Your task to perform on an android device: open chrome and create a bookmark for the current page Image 0: 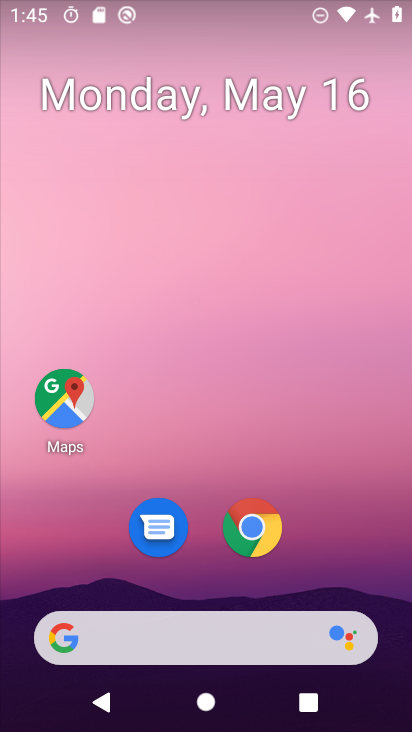
Step 0: press home button
Your task to perform on an android device: open chrome and create a bookmark for the current page Image 1: 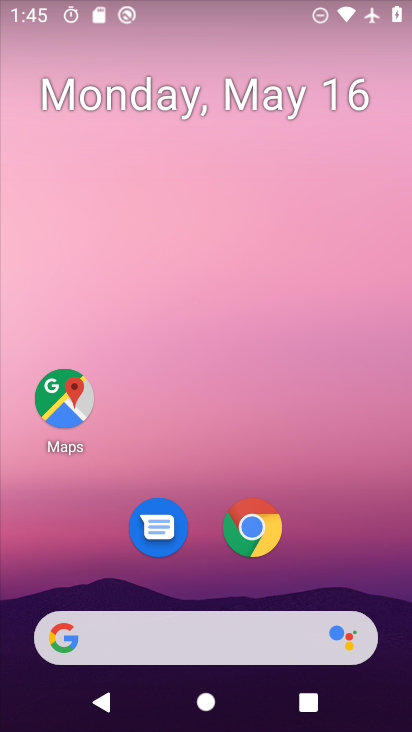
Step 1: drag from (149, 634) to (281, 144)
Your task to perform on an android device: open chrome and create a bookmark for the current page Image 2: 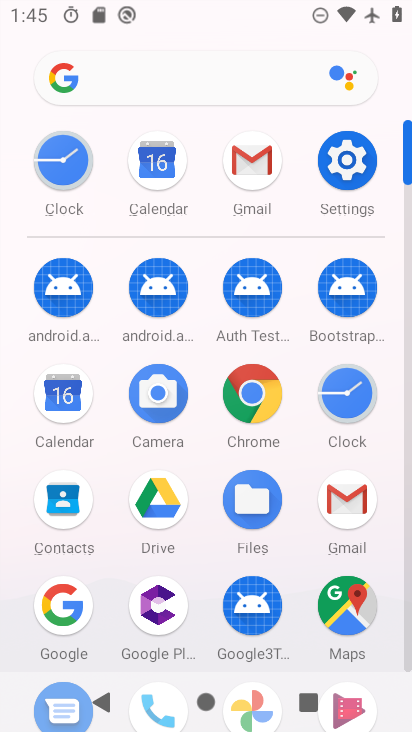
Step 2: click (253, 384)
Your task to perform on an android device: open chrome and create a bookmark for the current page Image 3: 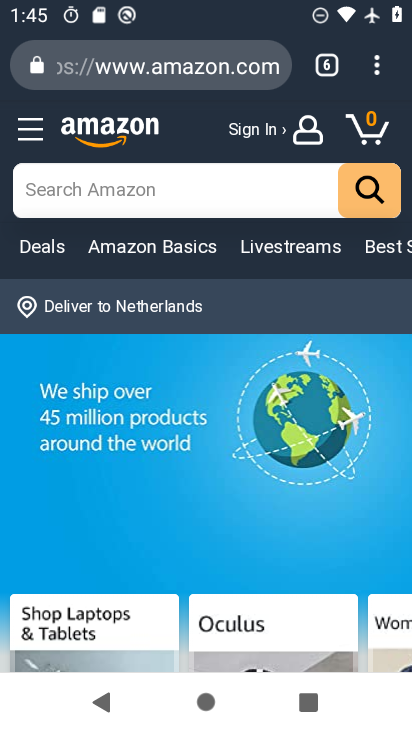
Step 3: click (364, 86)
Your task to perform on an android device: open chrome and create a bookmark for the current page Image 4: 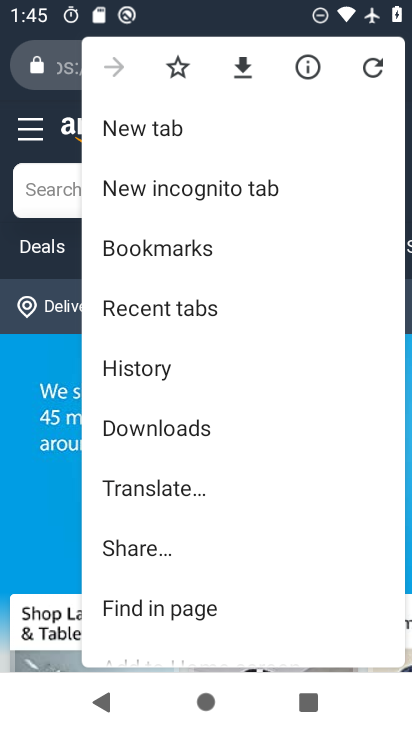
Step 4: click (179, 68)
Your task to perform on an android device: open chrome and create a bookmark for the current page Image 5: 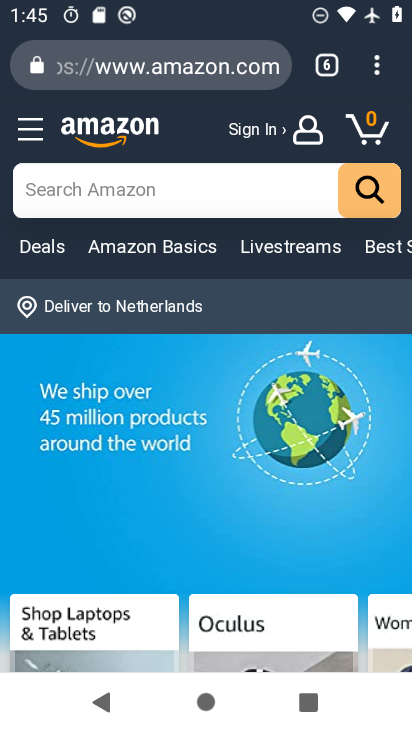
Step 5: task complete